Your task to perform on an android device: Go to notification settings Image 0: 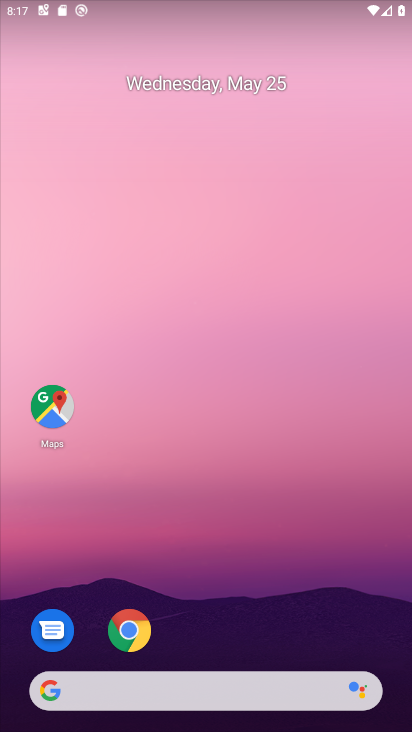
Step 0: drag from (262, 641) to (268, 168)
Your task to perform on an android device: Go to notification settings Image 1: 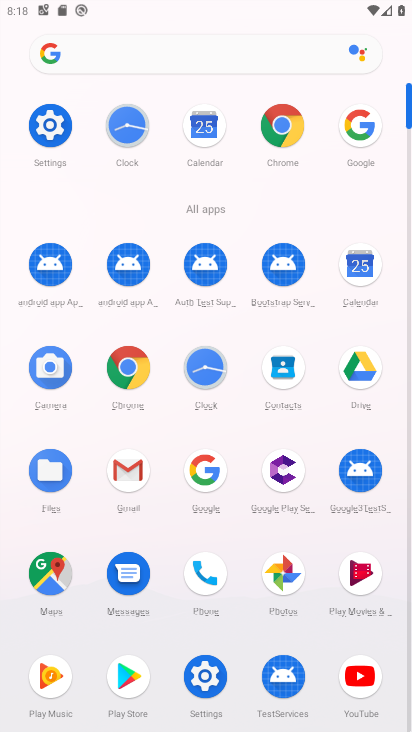
Step 1: click (48, 128)
Your task to perform on an android device: Go to notification settings Image 2: 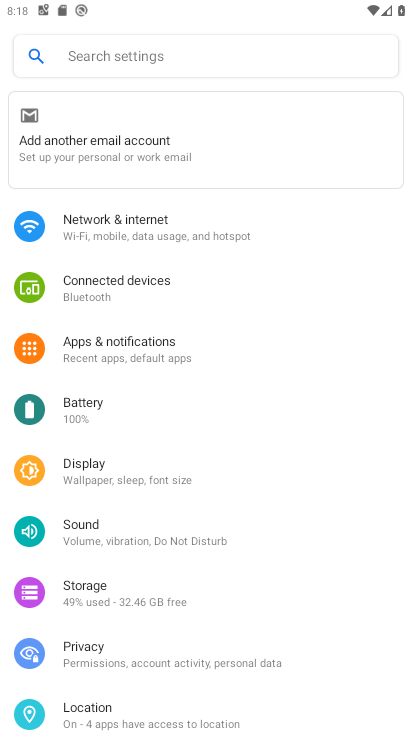
Step 2: click (141, 346)
Your task to perform on an android device: Go to notification settings Image 3: 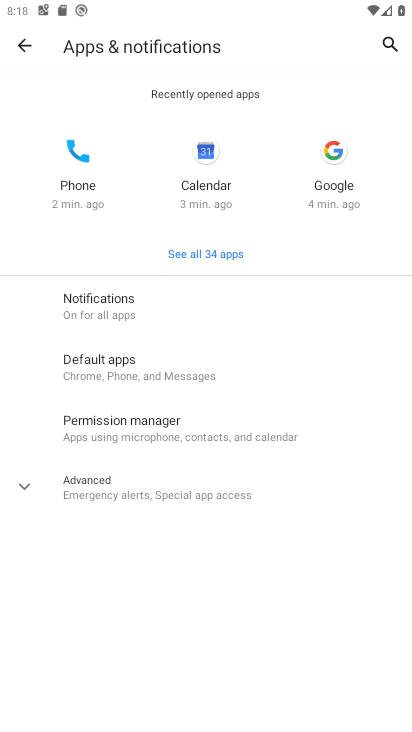
Step 3: click (119, 318)
Your task to perform on an android device: Go to notification settings Image 4: 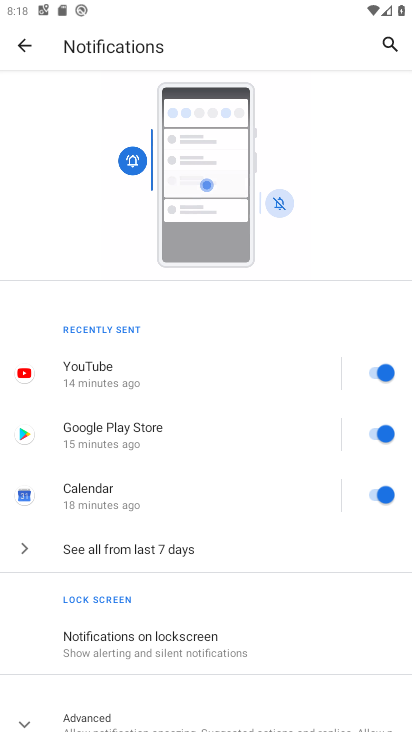
Step 4: task complete